Your task to perform on an android device: turn on translation in the chrome app Image 0: 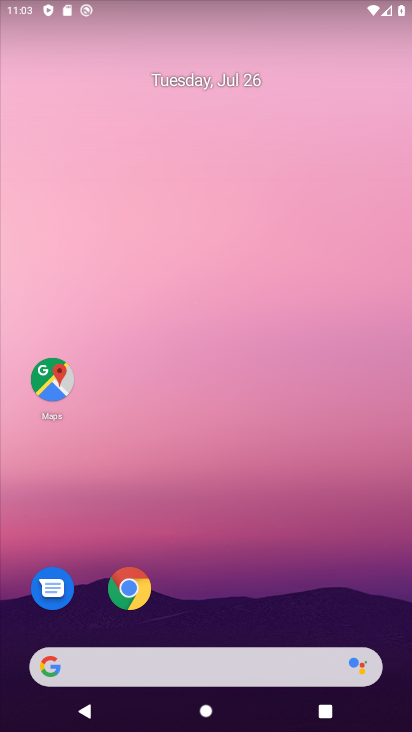
Step 0: click (135, 588)
Your task to perform on an android device: turn on translation in the chrome app Image 1: 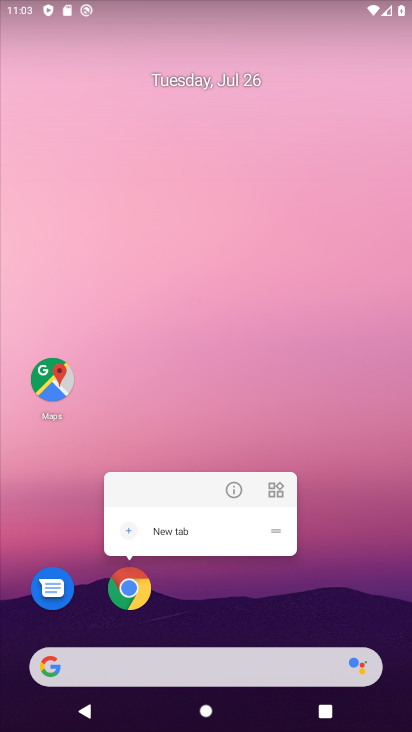
Step 1: click (131, 585)
Your task to perform on an android device: turn on translation in the chrome app Image 2: 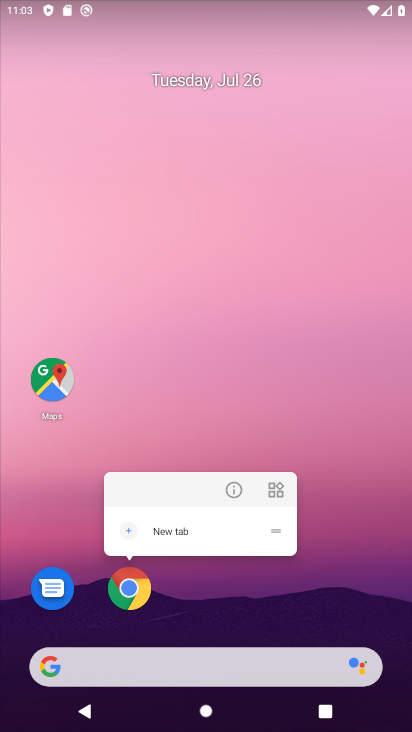
Step 2: click (131, 585)
Your task to perform on an android device: turn on translation in the chrome app Image 3: 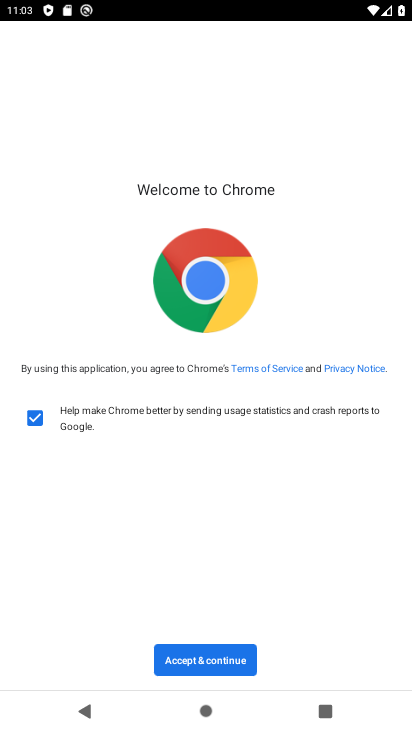
Step 3: click (186, 662)
Your task to perform on an android device: turn on translation in the chrome app Image 4: 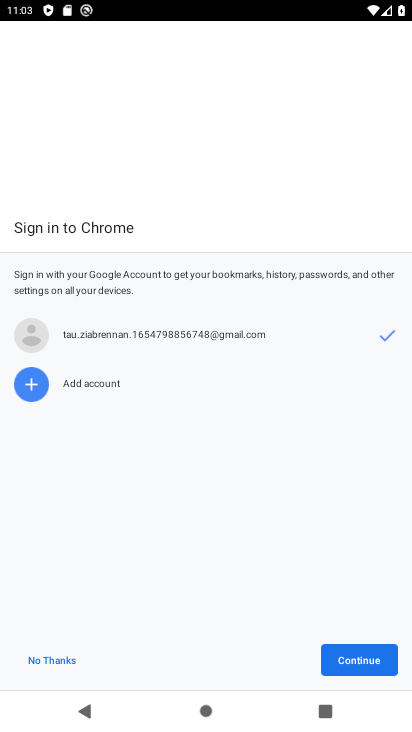
Step 4: click (362, 666)
Your task to perform on an android device: turn on translation in the chrome app Image 5: 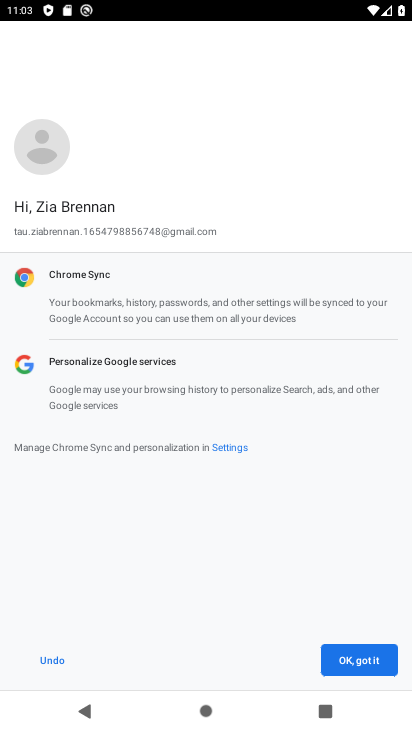
Step 5: click (362, 666)
Your task to perform on an android device: turn on translation in the chrome app Image 6: 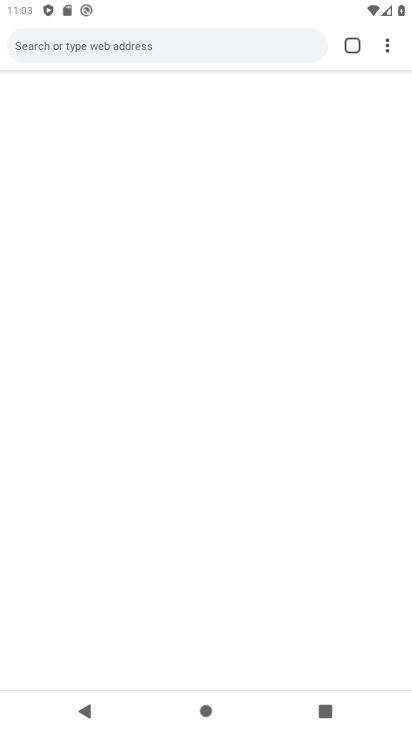
Step 6: click (388, 43)
Your task to perform on an android device: turn on translation in the chrome app Image 7: 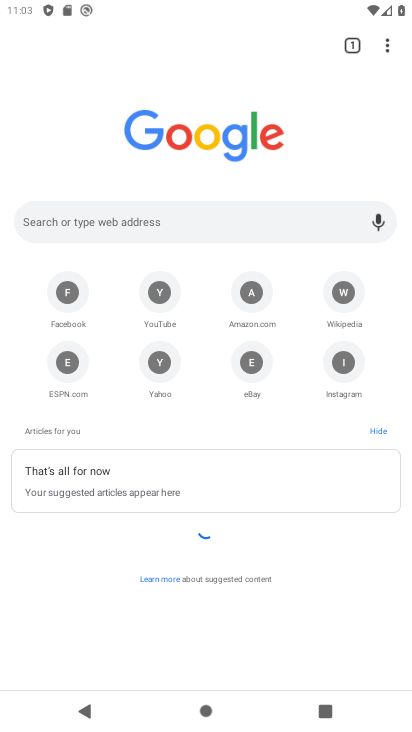
Step 7: drag from (388, 43) to (225, 389)
Your task to perform on an android device: turn on translation in the chrome app Image 8: 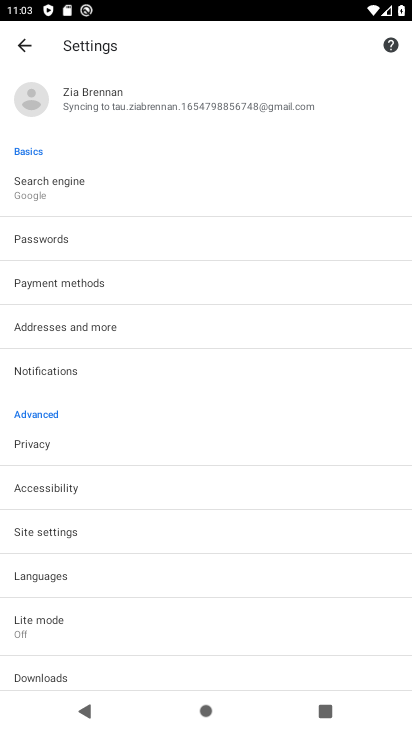
Step 8: click (32, 575)
Your task to perform on an android device: turn on translation in the chrome app Image 9: 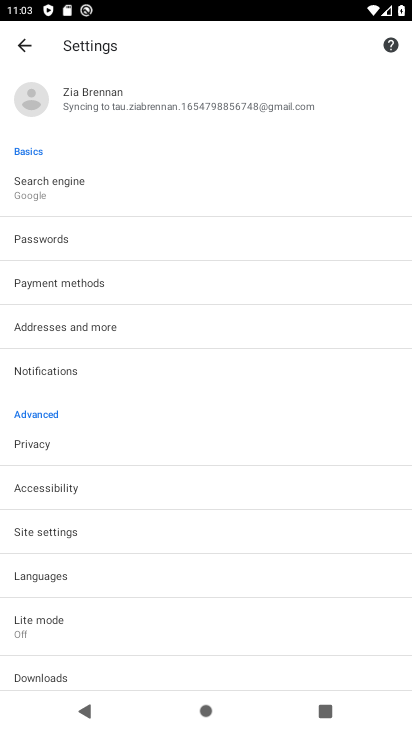
Step 9: click (41, 574)
Your task to perform on an android device: turn on translation in the chrome app Image 10: 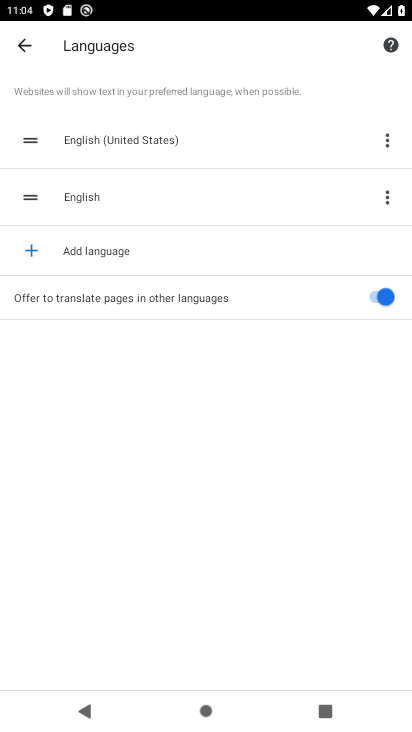
Step 10: task complete